Your task to perform on an android device: turn on wifi Image 0: 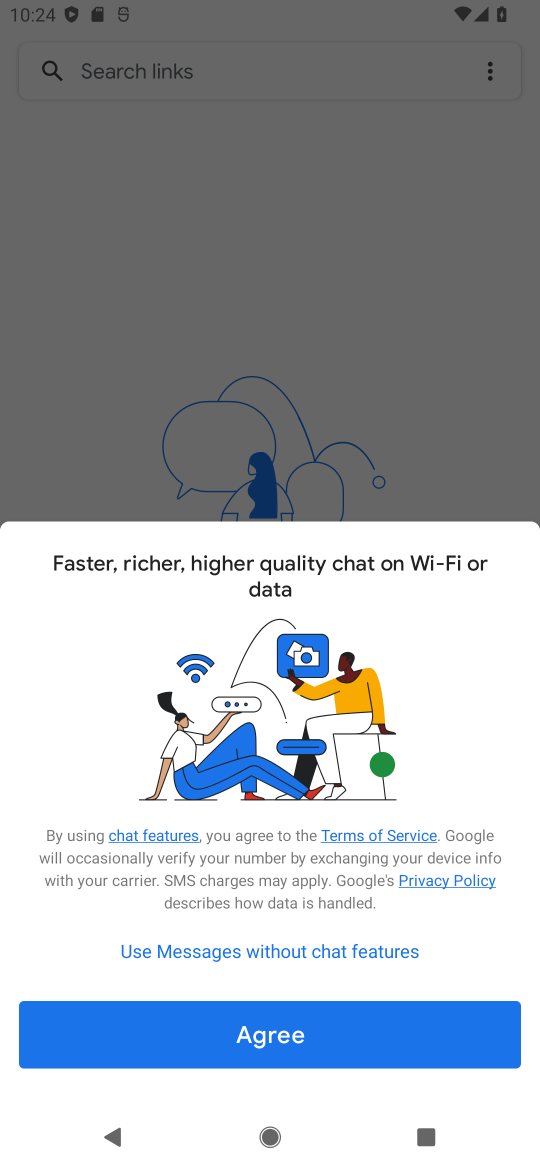
Step 0: drag from (216, 21) to (227, 731)
Your task to perform on an android device: turn on wifi Image 1: 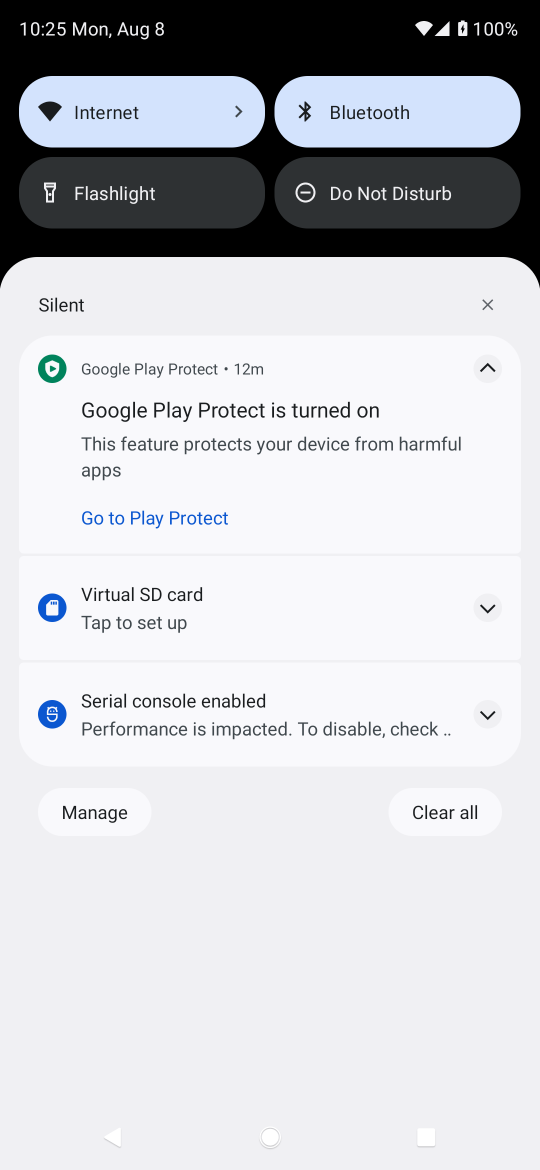
Step 1: click (225, 109)
Your task to perform on an android device: turn on wifi Image 2: 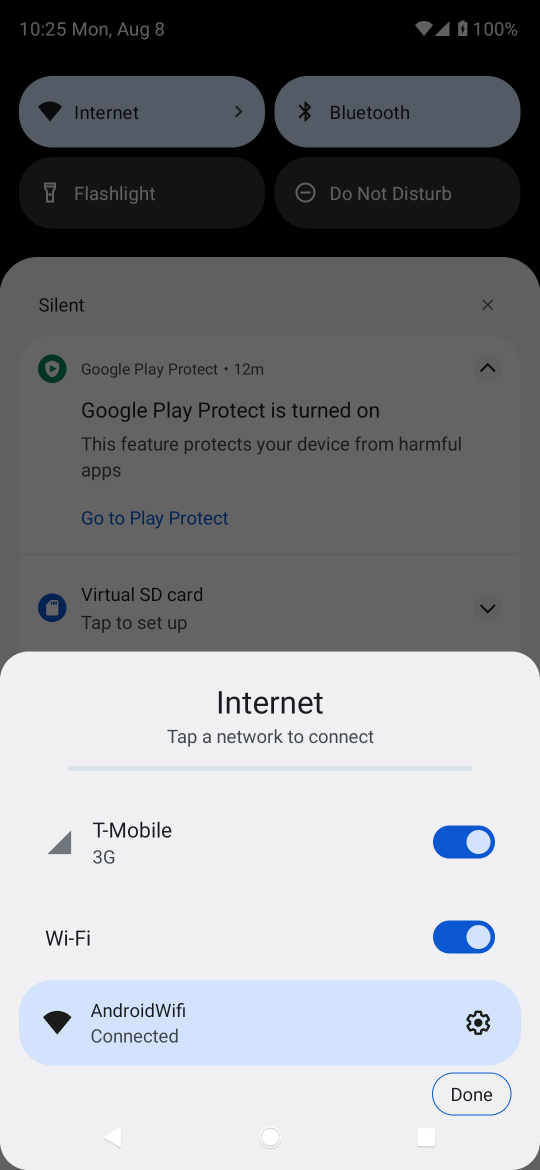
Step 2: click (476, 1021)
Your task to perform on an android device: turn on wifi Image 3: 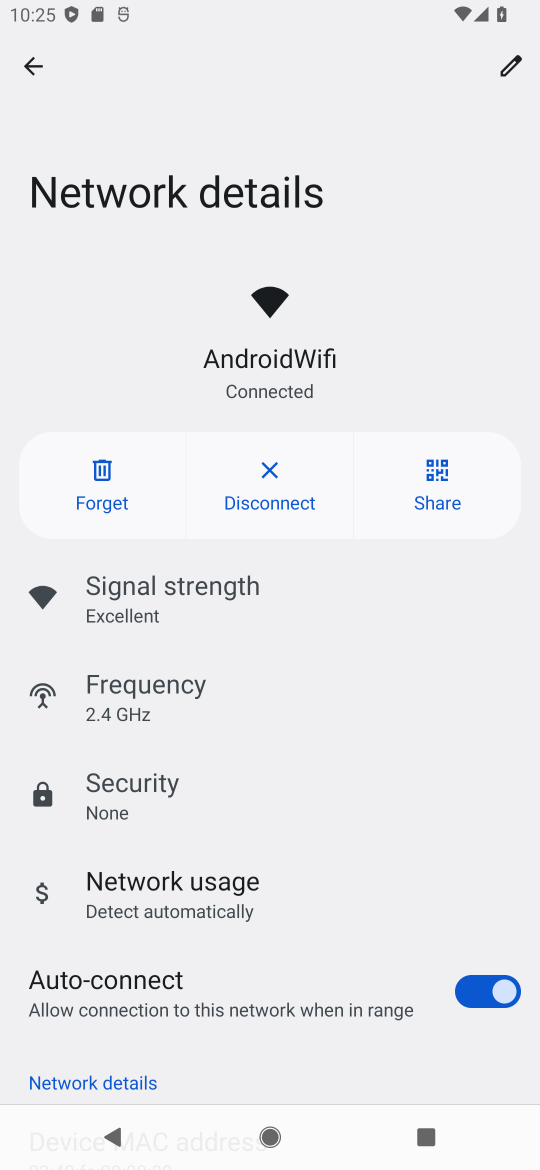
Step 3: task complete